Your task to perform on an android device: Go to Amazon Image 0: 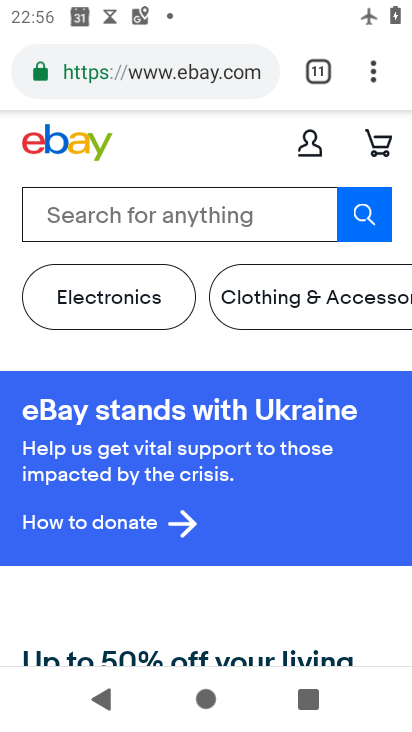
Step 0: click (376, 73)
Your task to perform on an android device: Go to Amazon Image 1: 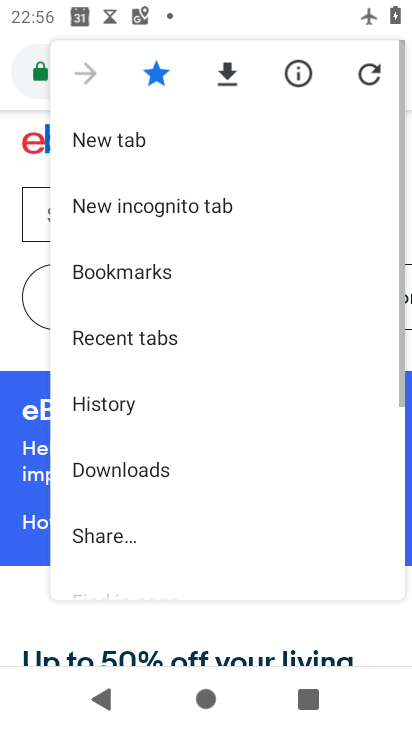
Step 1: click (111, 130)
Your task to perform on an android device: Go to Amazon Image 2: 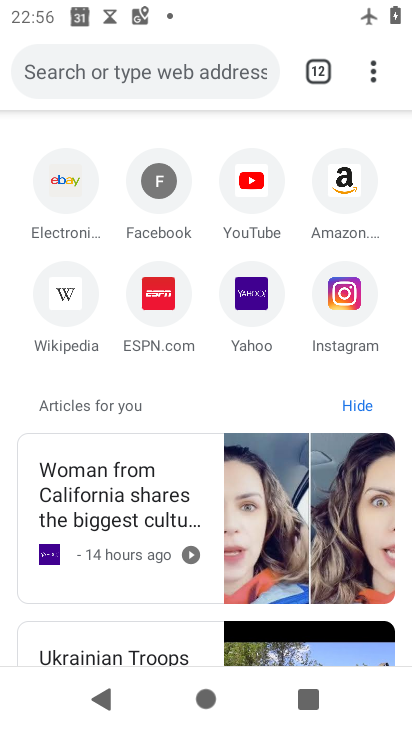
Step 2: click (348, 167)
Your task to perform on an android device: Go to Amazon Image 3: 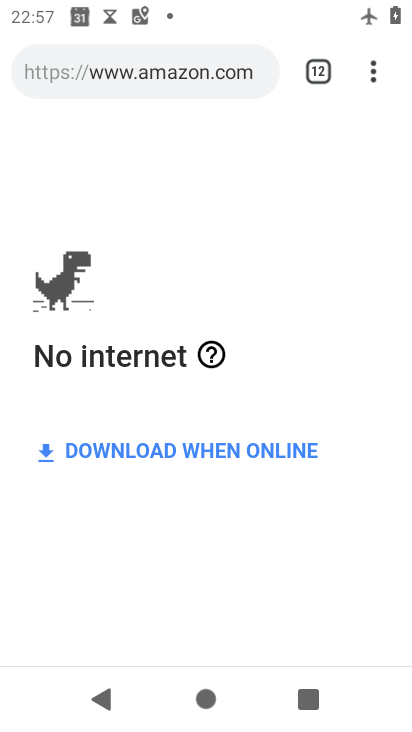
Step 3: task complete